Your task to perform on an android device: turn off location Image 0: 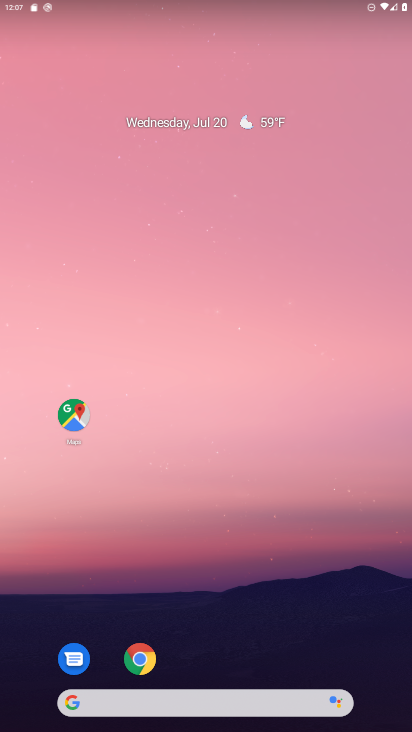
Step 0: drag from (234, 245) to (212, 0)
Your task to perform on an android device: turn off location Image 1: 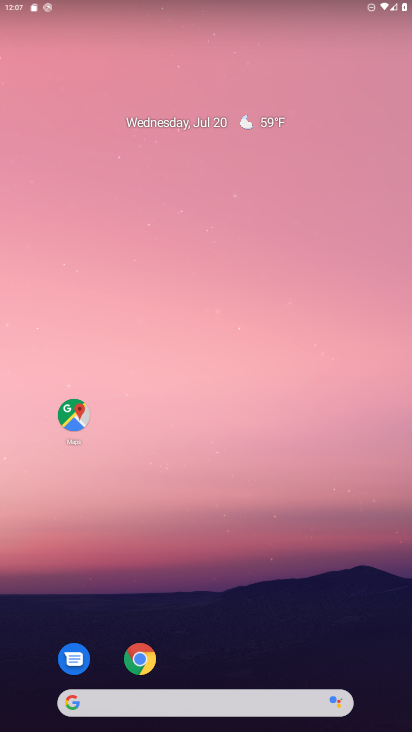
Step 1: drag from (265, 593) to (240, 81)
Your task to perform on an android device: turn off location Image 2: 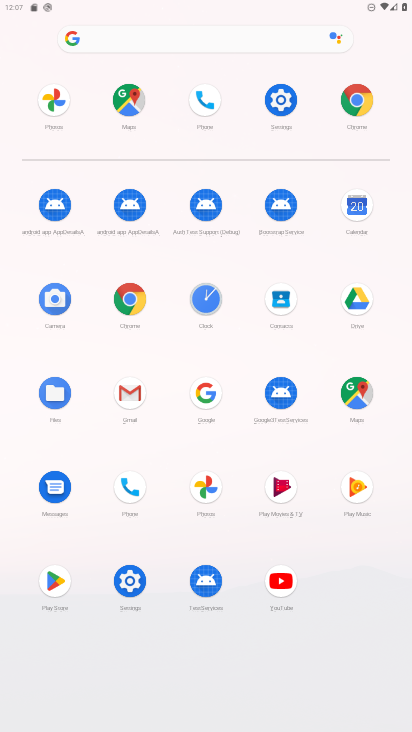
Step 2: click (286, 102)
Your task to perform on an android device: turn off location Image 3: 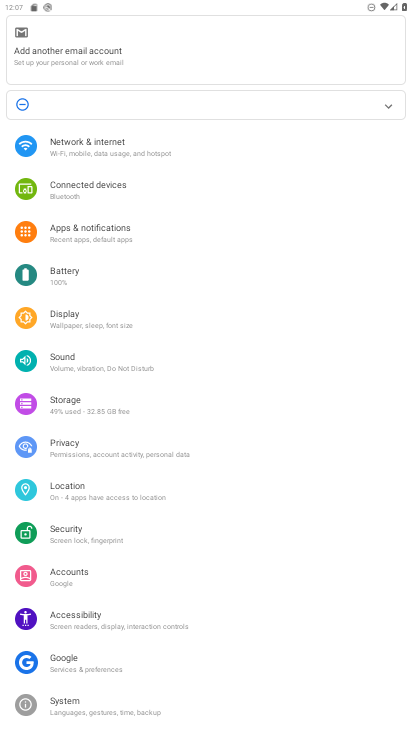
Step 3: click (78, 495)
Your task to perform on an android device: turn off location Image 4: 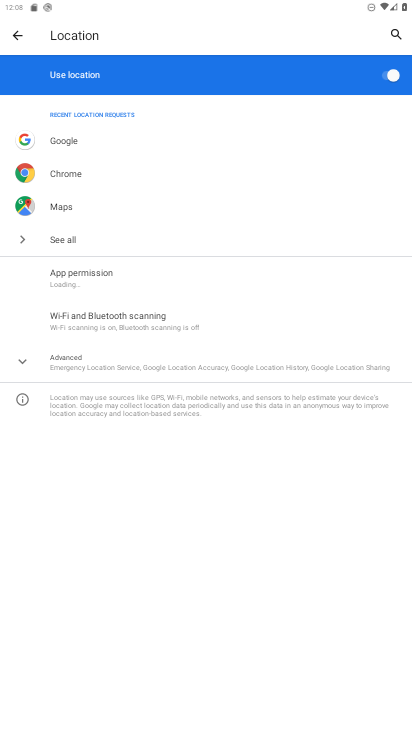
Step 4: click (376, 75)
Your task to perform on an android device: turn off location Image 5: 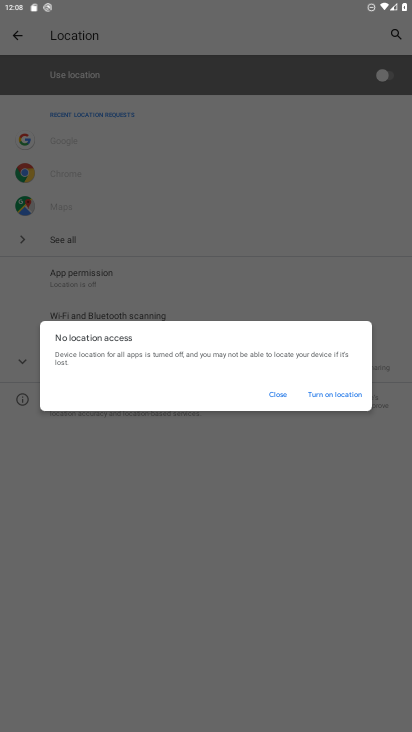
Step 5: task complete